Your task to perform on an android device: toggle priority inbox in the gmail app Image 0: 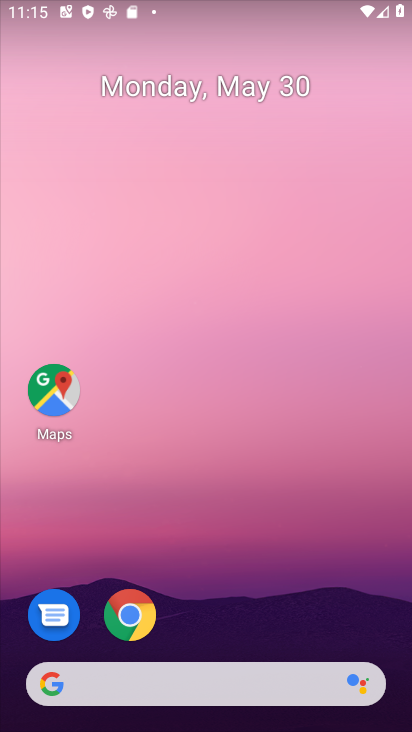
Step 0: drag from (291, 509) to (269, 39)
Your task to perform on an android device: toggle priority inbox in the gmail app Image 1: 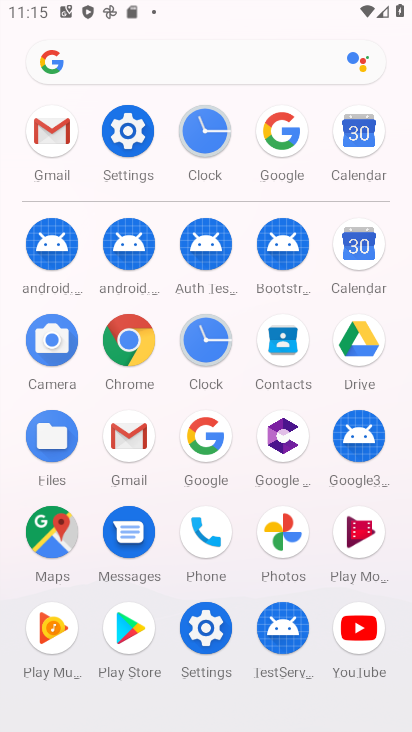
Step 1: click (57, 131)
Your task to perform on an android device: toggle priority inbox in the gmail app Image 2: 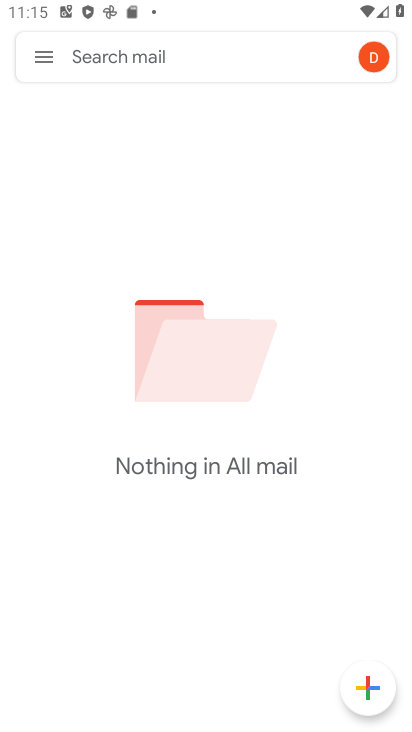
Step 2: click (45, 56)
Your task to perform on an android device: toggle priority inbox in the gmail app Image 3: 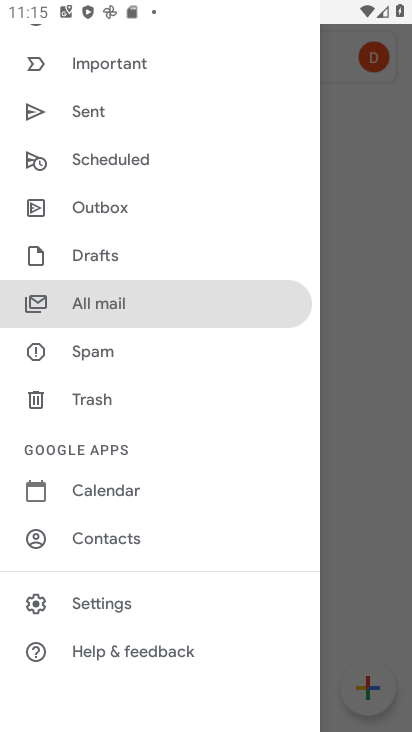
Step 3: click (165, 613)
Your task to perform on an android device: toggle priority inbox in the gmail app Image 4: 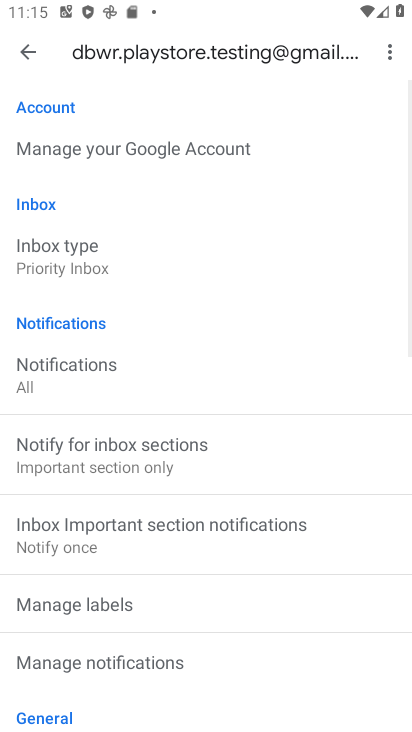
Step 4: click (180, 270)
Your task to perform on an android device: toggle priority inbox in the gmail app Image 5: 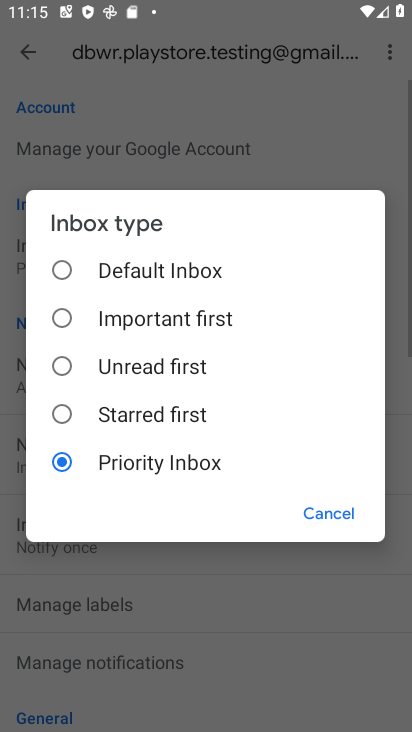
Step 5: click (183, 262)
Your task to perform on an android device: toggle priority inbox in the gmail app Image 6: 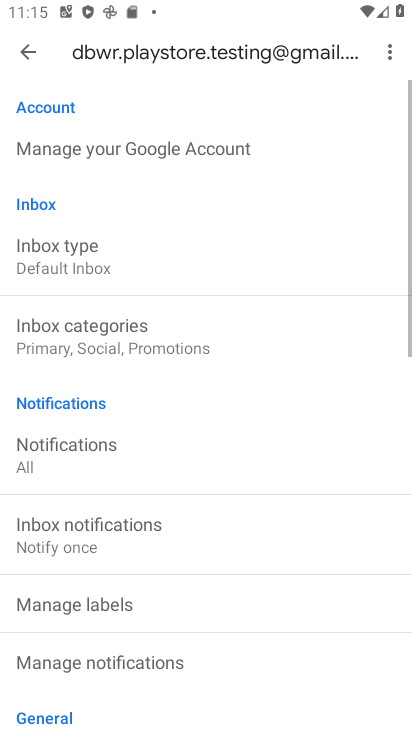
Step 6: task complete